Your task to perform on an android device: Open calendar and show me the fourth week of next month Image 0: 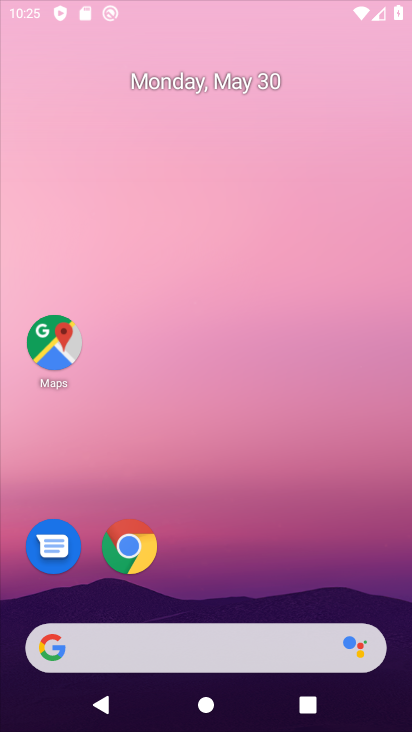
Step 0: press home button
Your task to perform on an android device: Open calendar and show me the fourth week of next month Image 1: 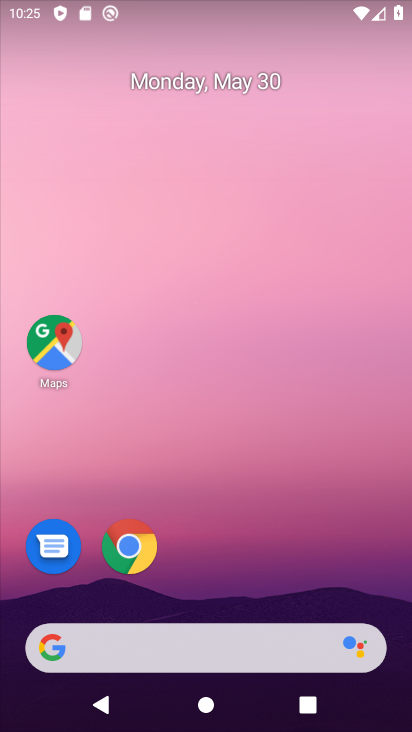
Step 1: drag from (222, 605) to (237, 25)
Your task to perform on an android device: Open calendar and show me the fourth week of next month Image 2: 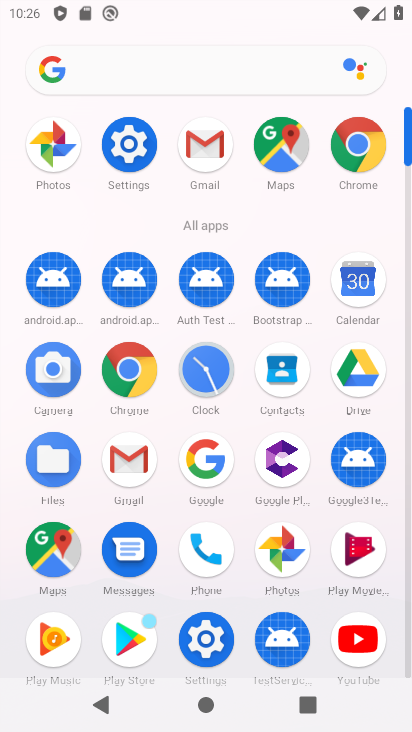
Step 2: click (357, 276)
Your task to perform on an android device: Open calendar and show me the fourth week of next month Image 3: 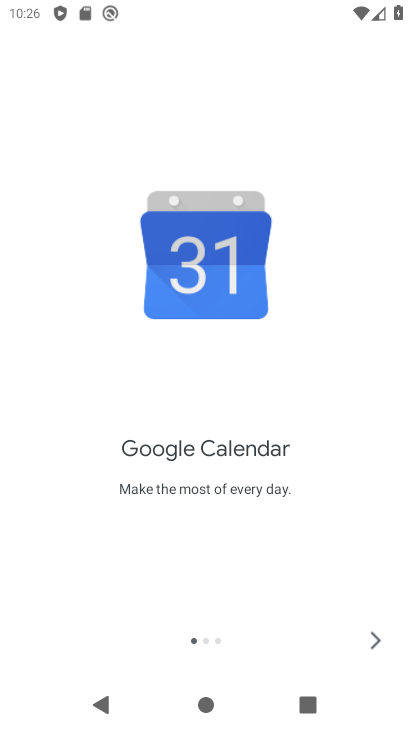
Step 3: click (365, 631)
Your task to perform on an android device: Open calendar and show me the fourth week of next month Image 4: 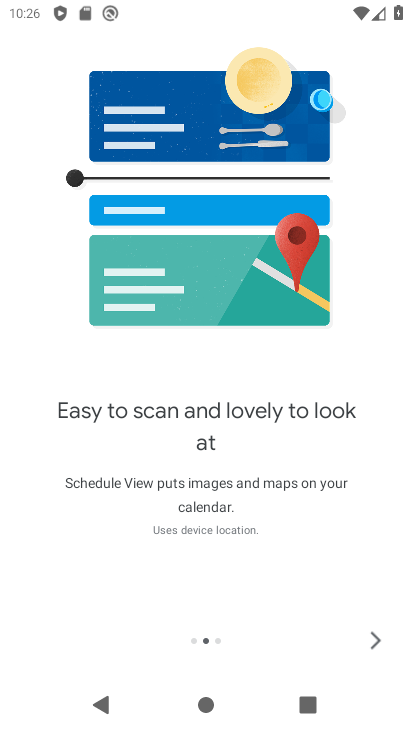
Step 4: click (365, 631)
Your task to perform on an android device: Open calendar and show me the fourth week of next month Image 5: 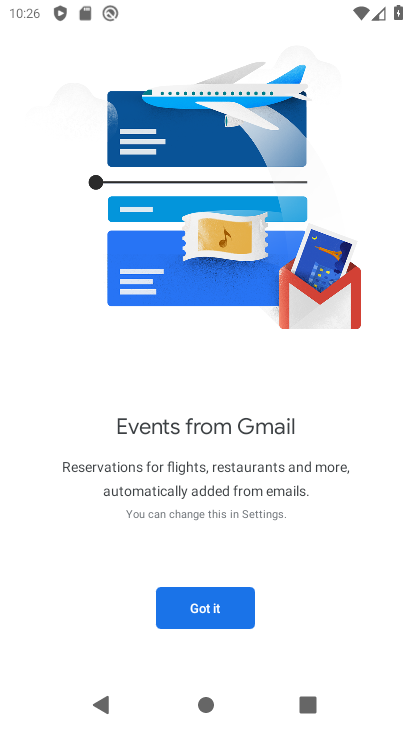
Step 5: click (200, 604)
Your task to perform on an android device: Open calendar and show me the fourth week of next month Image 6: 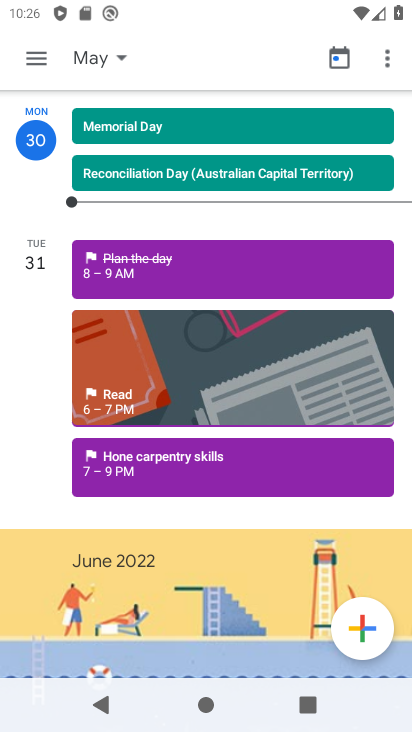
Step 6: click (121, 50)
Your task to perform on an android device: Open calendar and show me the fourth week of next month Image 7: 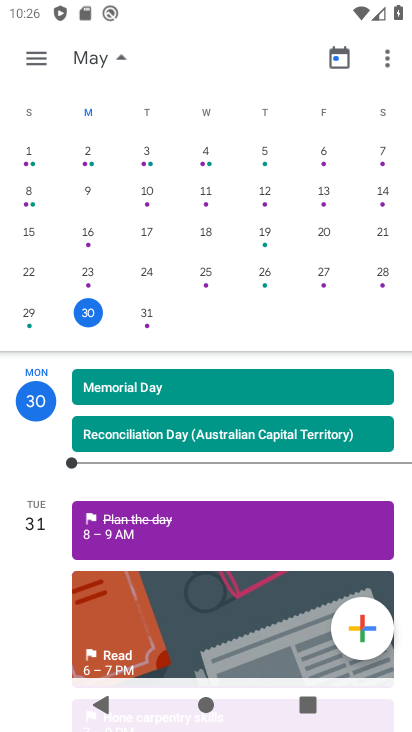
Step 7: drag from (364, 247) to (0, 225)
Your task to perform on an android device: Open calendar and show me the fourth week of next month Image 8: 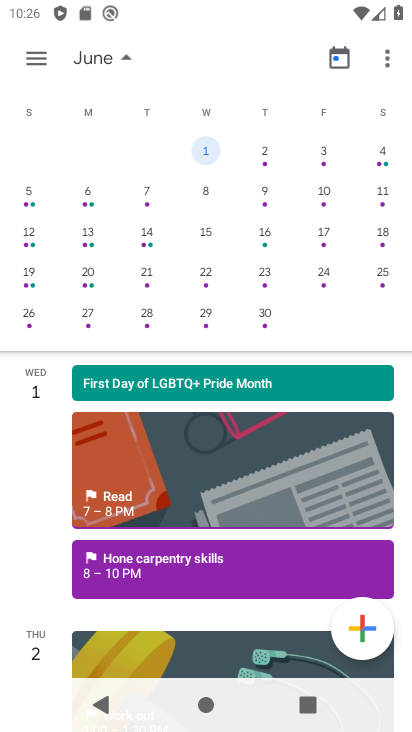
Step 8: click (32, 268)
Your task to perform on an android device: Open calendar and show me the fourth week of next month Image 9: 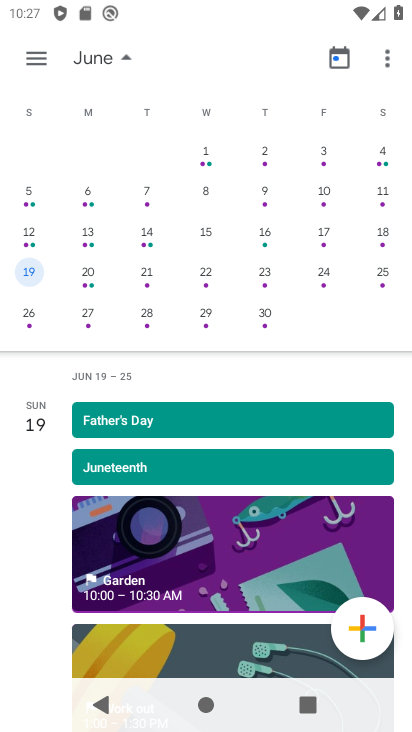
Step 9: click (124, 54)
Your task to perform on an android device: Open calendar and show me the fourth week of next month Image 10: 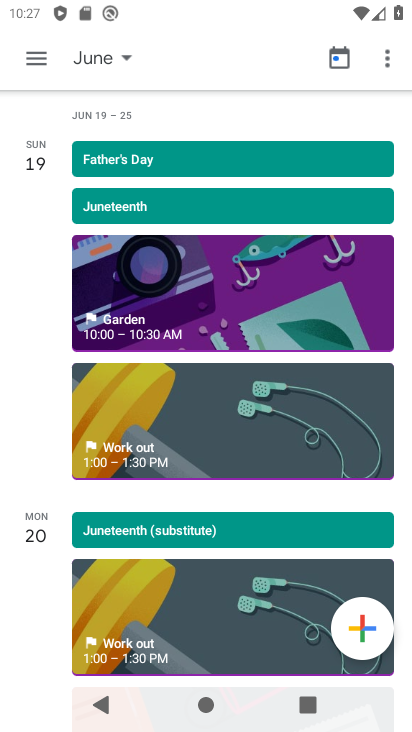
Step 10: task complete